Your task to perform on an android device: Open battery settings Image 0: 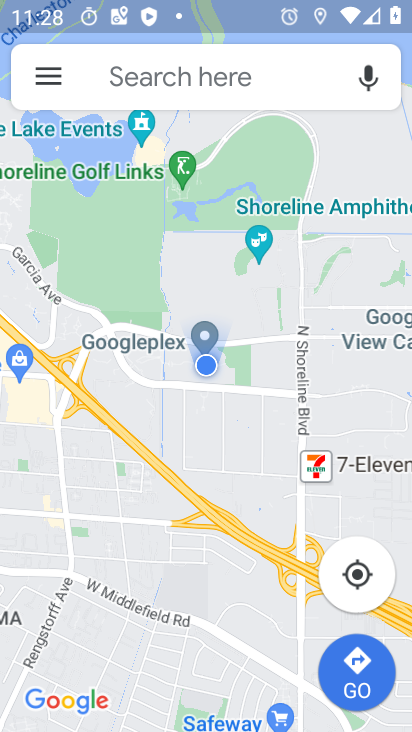
Step 0: press home button
Your task to perform on an android device: Open battery settings Image 1: 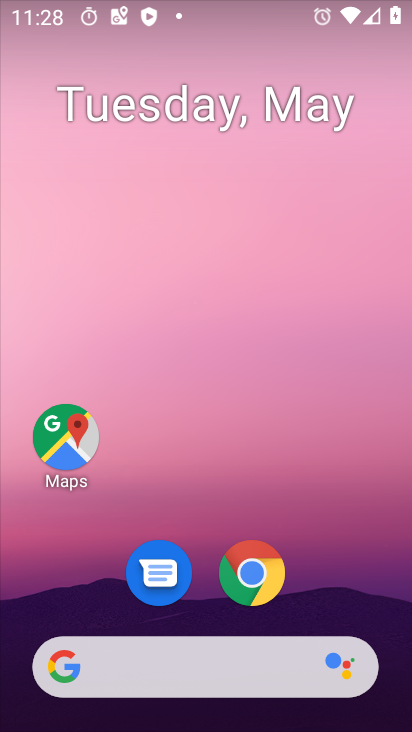
Step 1: drag from (280, 682) to (296, 267)
Your task to perform on an android device: Open battery settings Image 2: 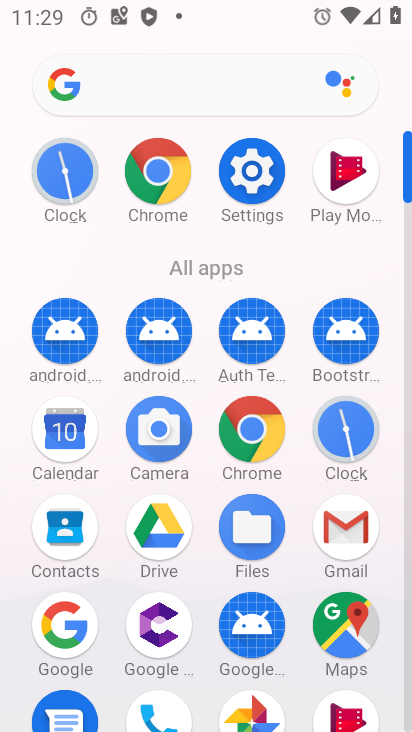
Step 2: click (241, 152)
Your task to perform on an android device: Open battery settings Image 3: 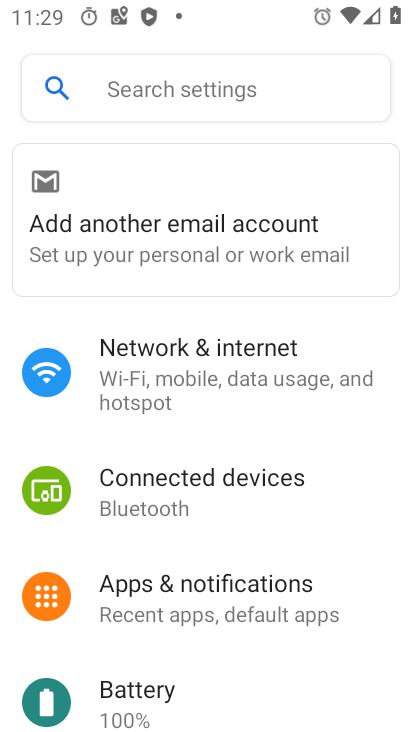
Step 3: click (171, 707)
Your task to perform on an android device: Open battery settings Image 4: 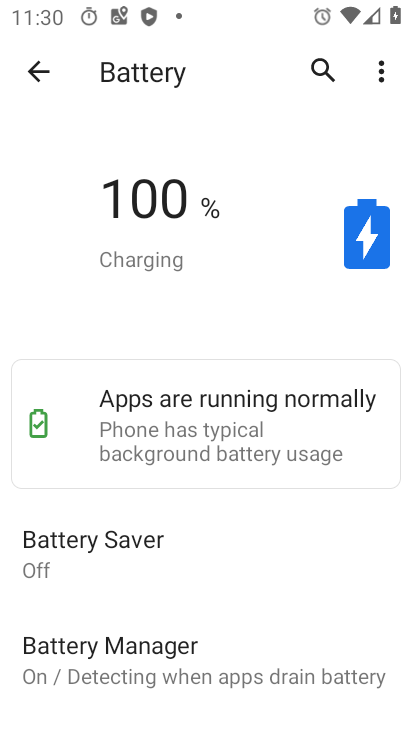
Step 4: task complete